Your task to perform on an android device: see tabs open on other devices in the chrome app Image 0: 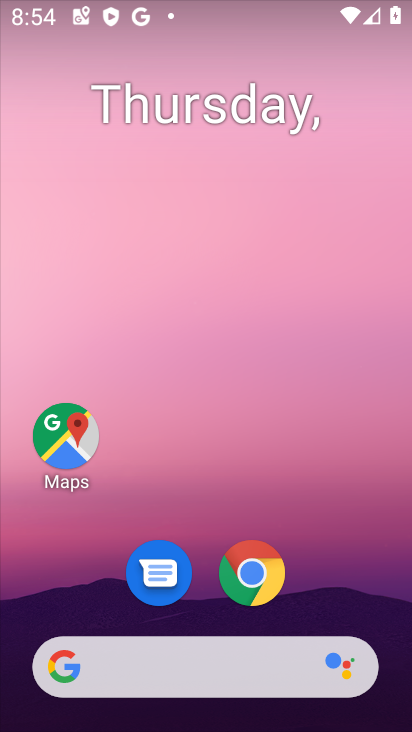
Step 0: drag from (335, 573) to (305, 229)
Your task to perform on an android device: see tabs open on other devices in the chrome app Image 1: 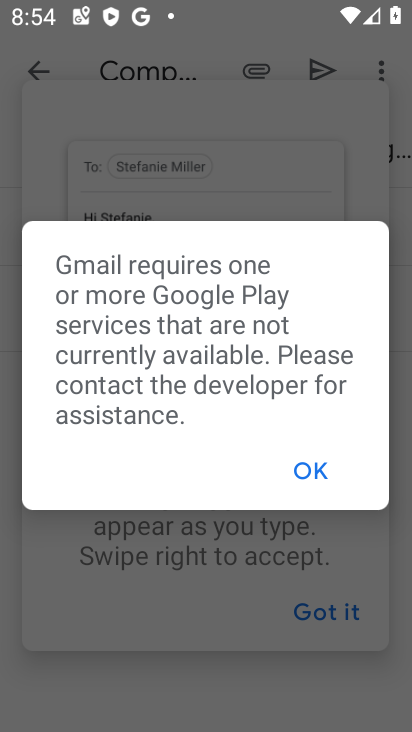
Step 1: click (292, 474)
Your task to perform on an android device: see tabs open on other devices in the chrome app Image 2: 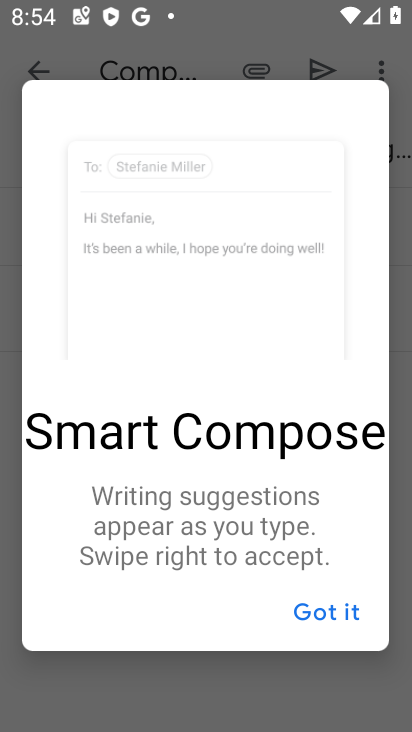
Step 2: press home button
Your task to perform on an android device: see tabs open on other devices in the chrome app Image 3: 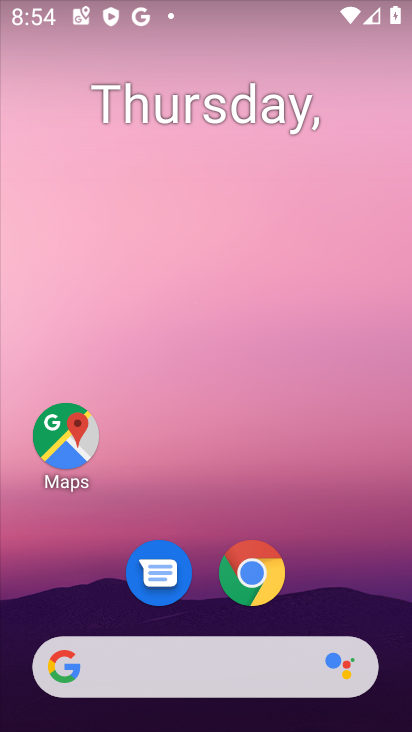
Step 3: drag from (351, 591) to (328, 184)
Your task to perform on an android device: see tabs open on other devices in the chrome app Image 4: 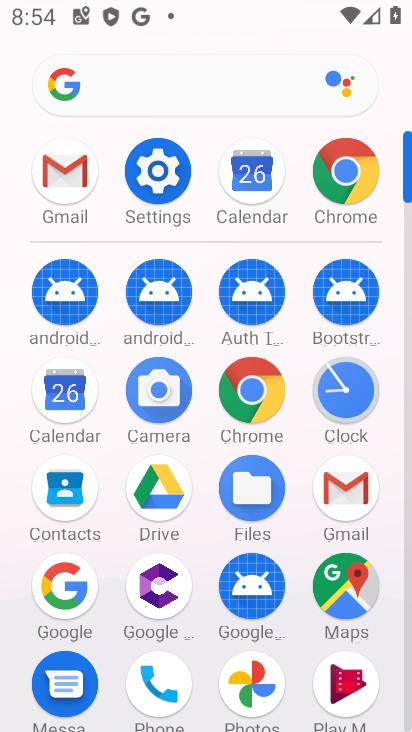
Step 4: click (357, 172)
Your task to perform on an android device: see tabs open on other devices in the chrome app Image 5: 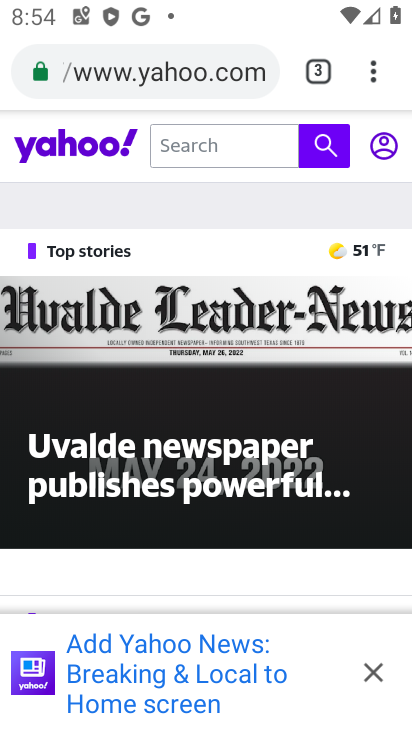
Step 5: click (306, 71)
Your task to perform on an android device: see tabs open on other devices in the chrome app Image 6: 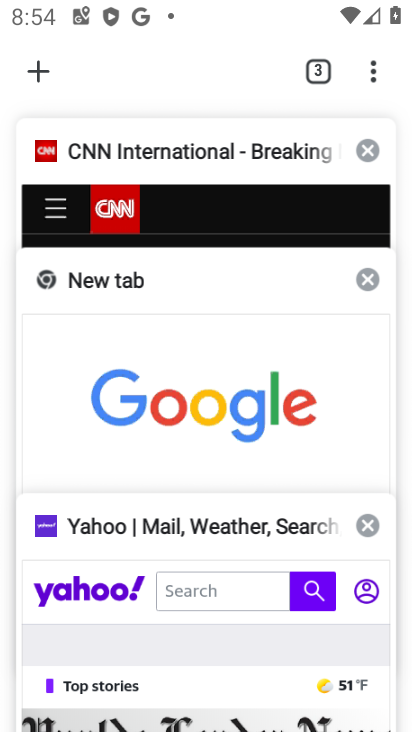
Step 6: task complete